Your task to perform on an android device: Search for Mexican restaurants on Maps Image 0: 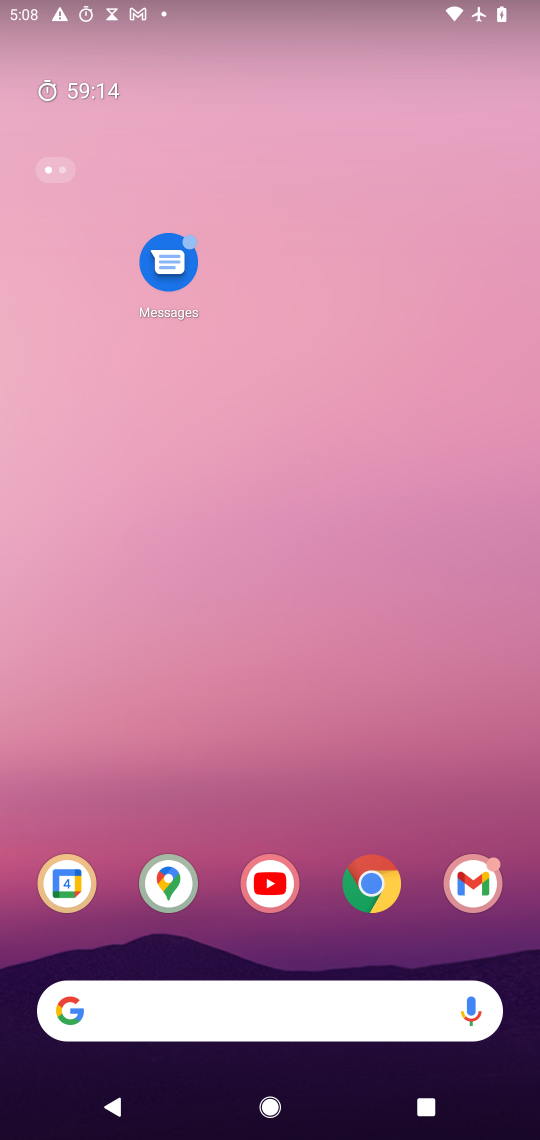
Step 0: drag from (316, 959) to (279, 95)
Your task to perform on an android device: Search for Mexican restaurants on Maps Image 1: 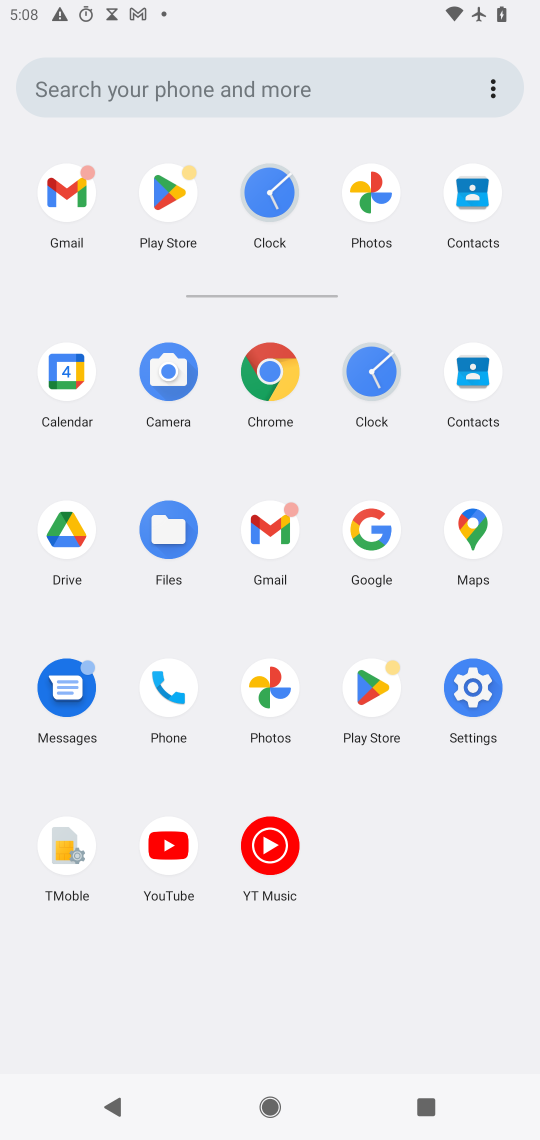
Step 1: click (477, 529)
Your task to perform on an android device: Search for Mexican restaurants on Maps Image 2: 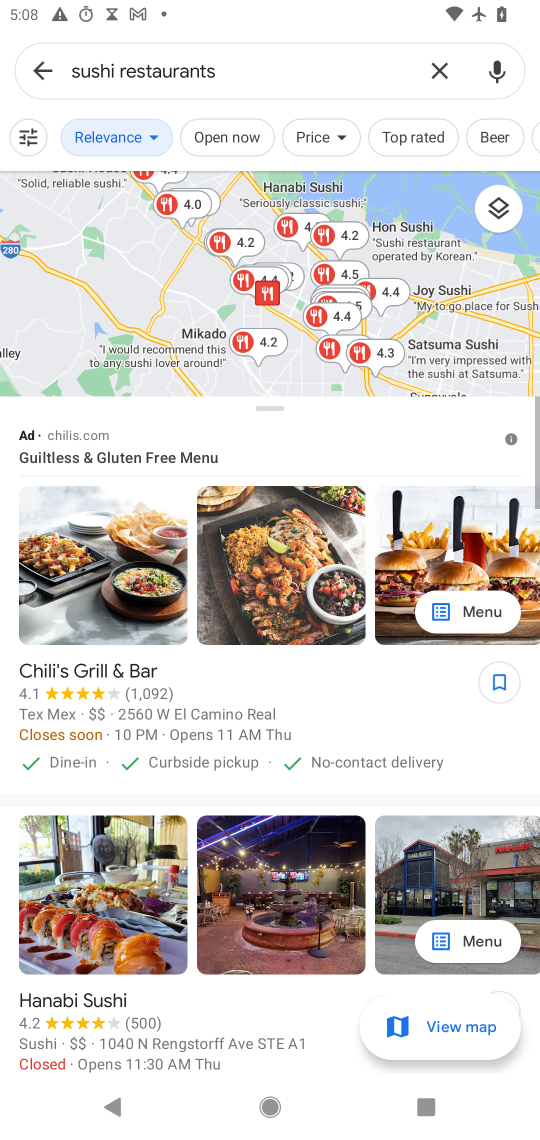
Step 2: click (438, 69)
Your task to perform on an android device: Search for Mexican restaurants on Maps Image 3: 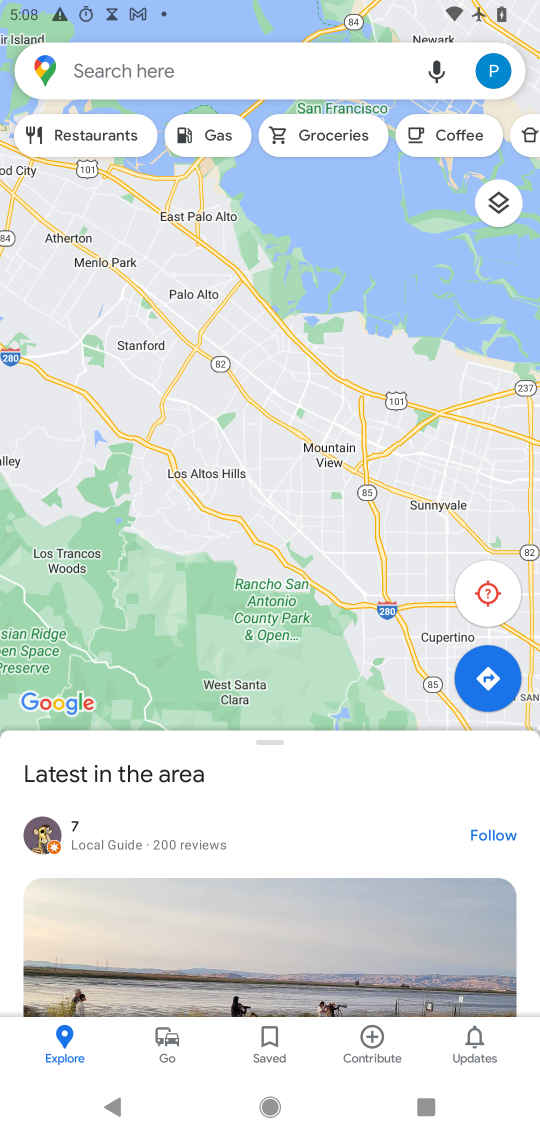
Step 3: click (228, 71)
Your task to perform on an android device: Search for Mexican restaurants on Maps Image 4: 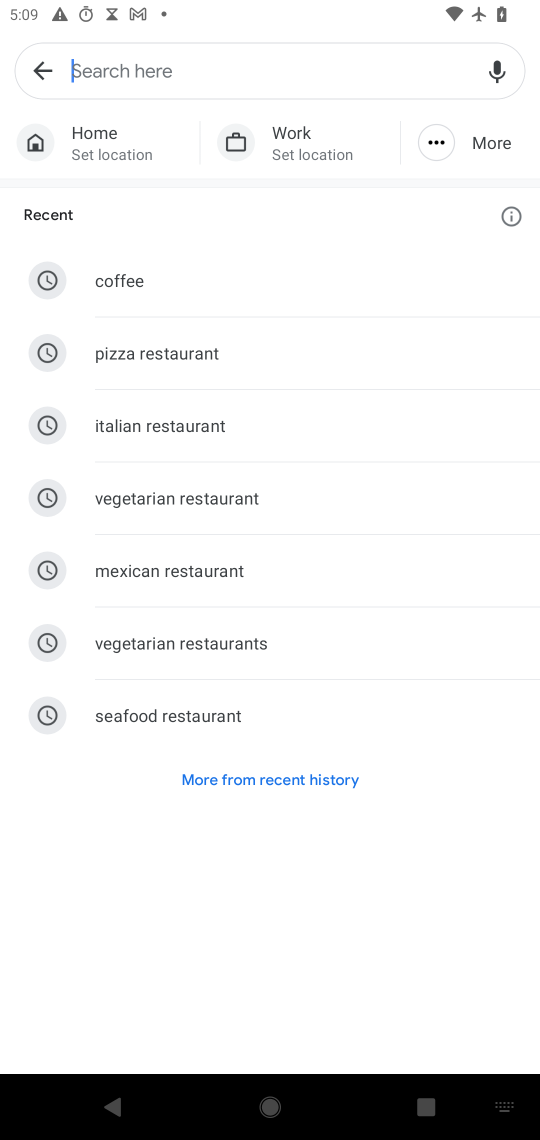
Step 4: type "Mexican restaurants"
Your task to perform on an android device: Search for Mexican restaurants on Maps Image 5: 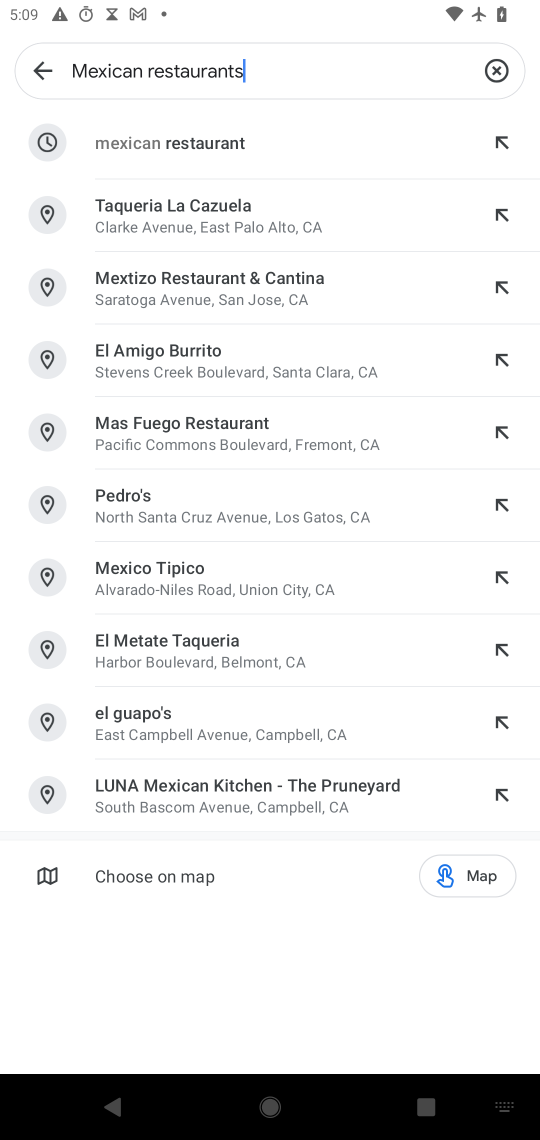
Step 5: click (178, 144)
Your task to perform on an android device: Search for Mexican restaurants on Maps Image 6: 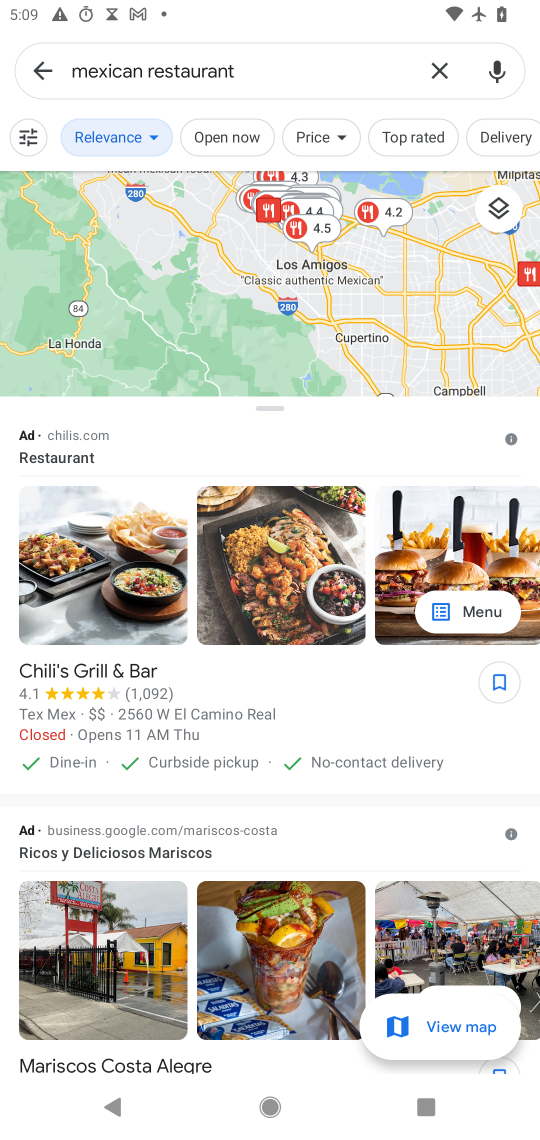
Step 6: task complete